Your task to perform on an android device: Open notification settings Image 0: 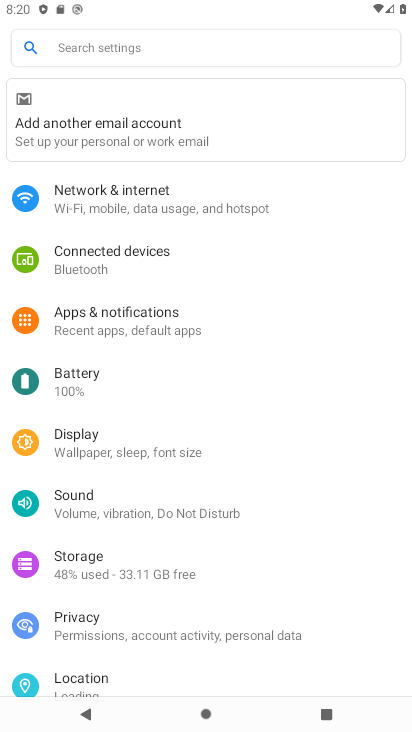
Step 0: press home button
Your task to perform on an android device: Open notification settings Image 1: 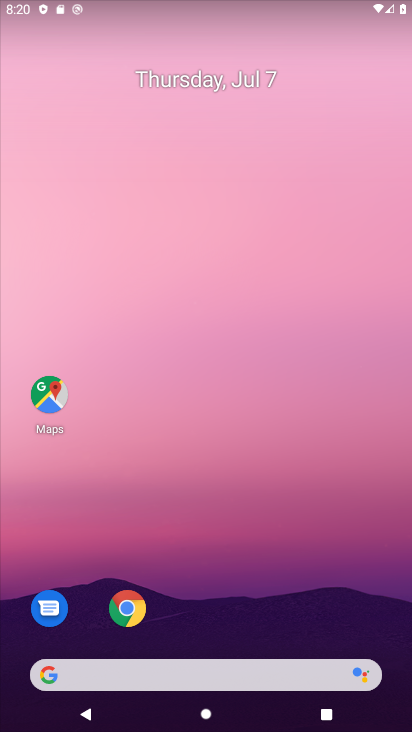
Step 1: drag from (207, 582) to (289, 17)
Your task to perform on an android device: Open notification settings Image 2: 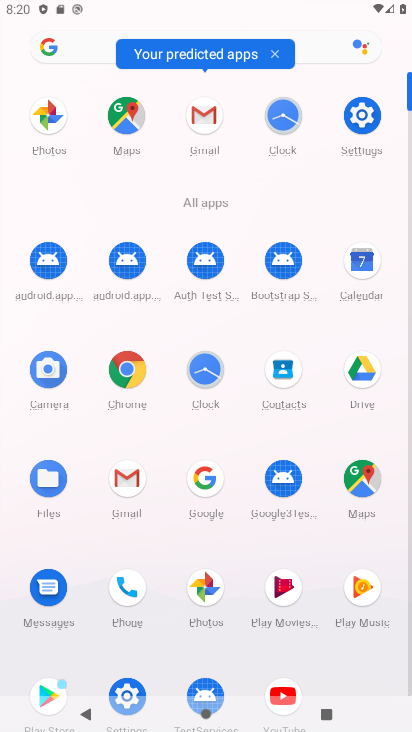
Step 2: click (363, 121)
Your task to perform on an android device: Open notification settings Image 3: 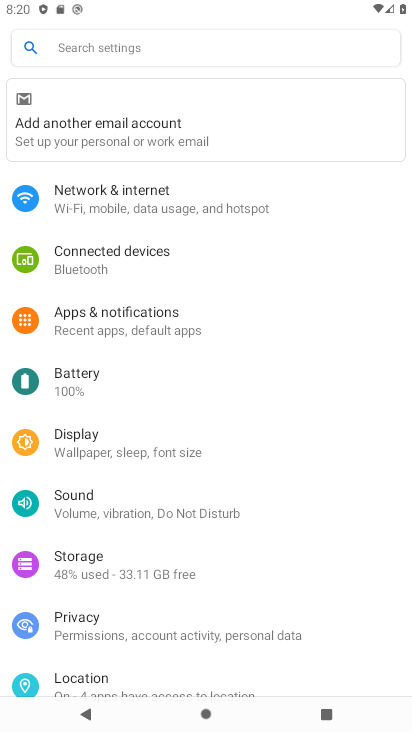
Step 3: click (124, 322)
Your task to perform on an android device: Open notification settings Image 4: 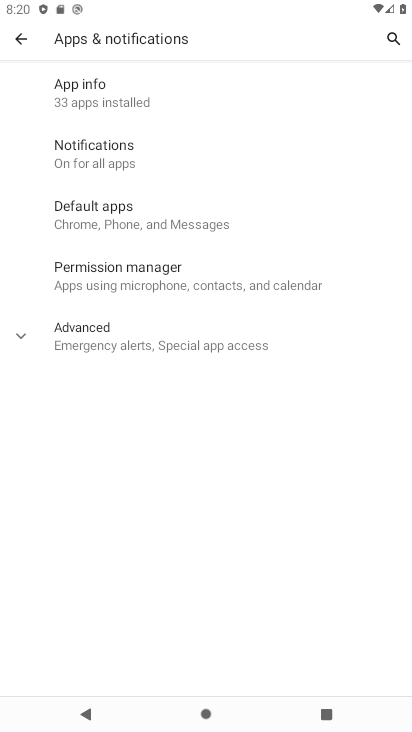
Step 4: click (118, 158)
Your task to perform on an android device: Open notification settings Image 5: 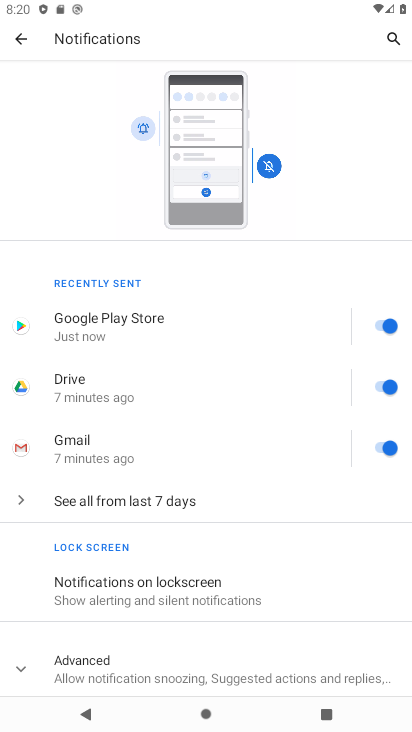
Step 5: task complete